Your task to perform on an android device: turn on airplane mode Image 0: 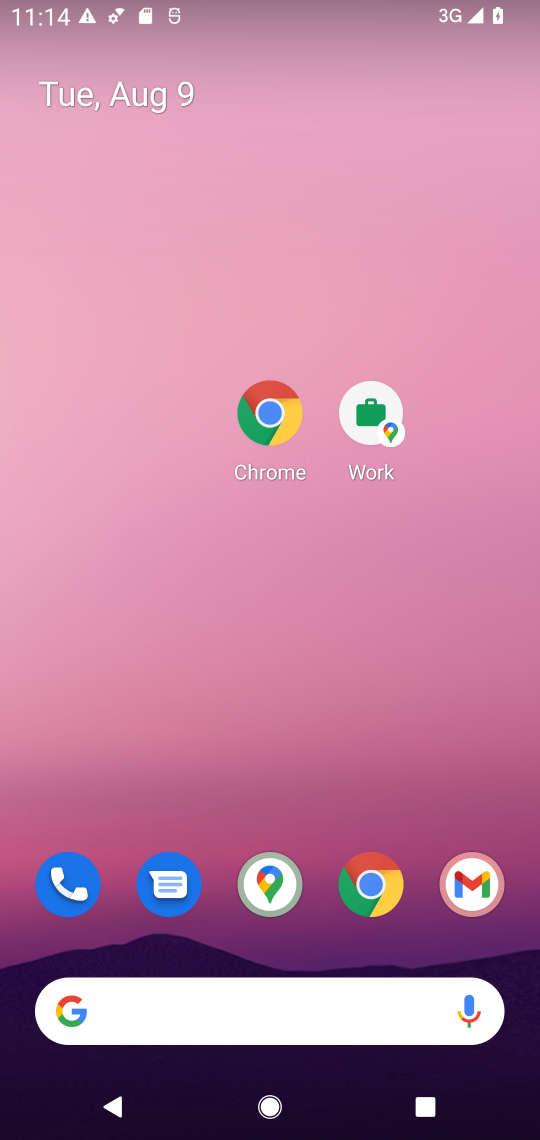
Step 0: drag from (302, 729) to (240, 426)
Your task to perform on an android device: turn on airplane mode Image 1: 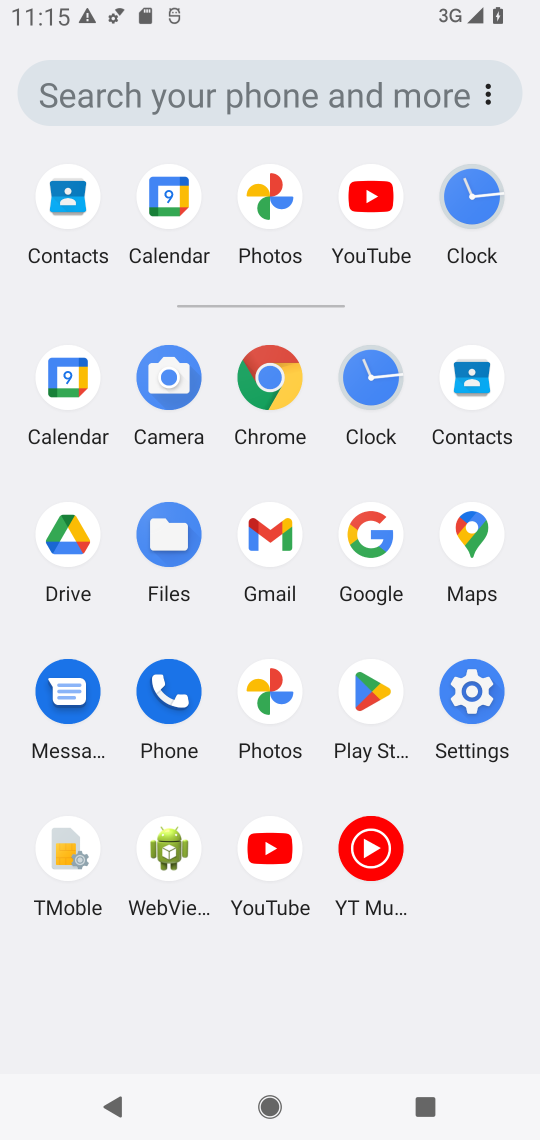
Step 1: click (473, 682)
Your task to perform on an android device: turn on airplane mode Image 2: 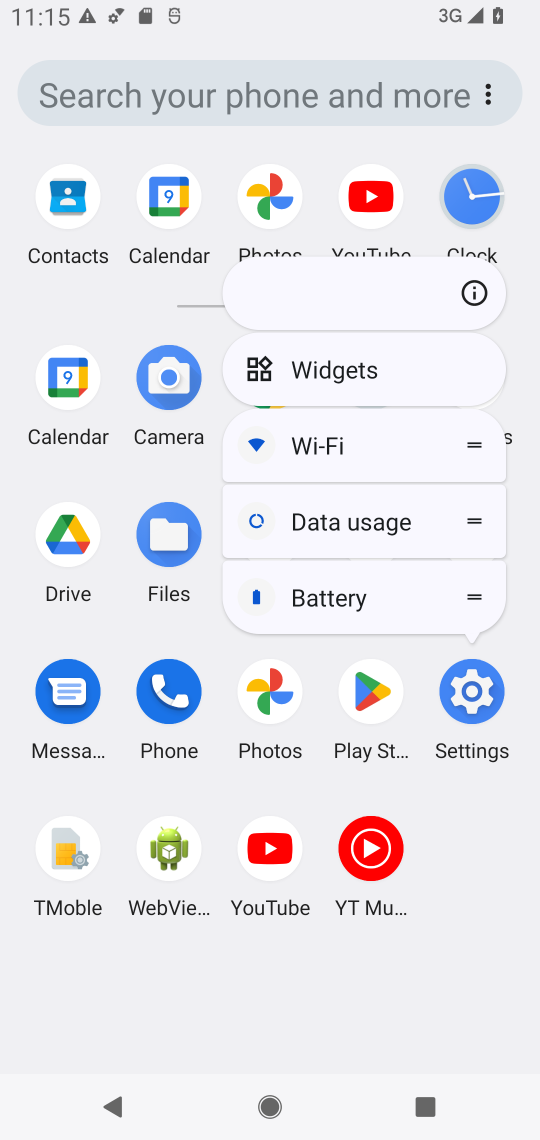
Step 2: click (450, 677)
Your task to perform on an android device: turn on airplane mode Image 3: 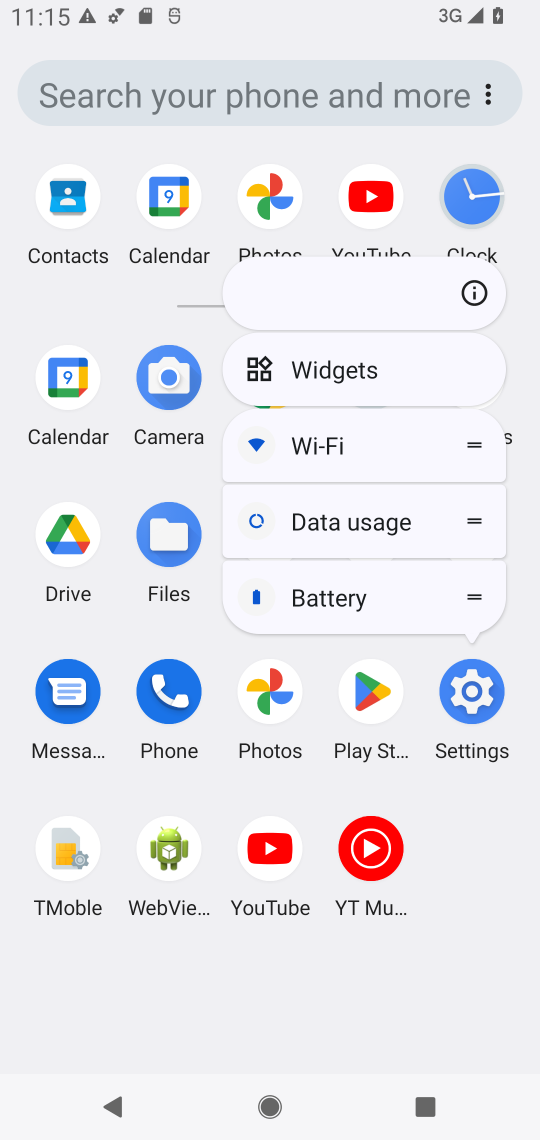
Step 3: click (468, 694)
Your task to perform on an android device: turn on airplane mode Image 4: 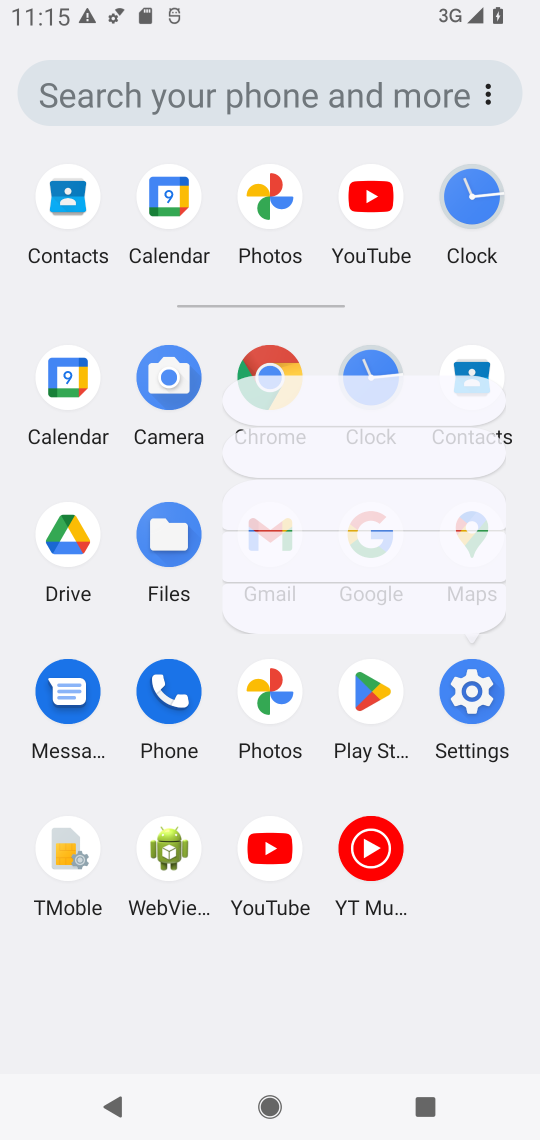
Step 4: click (478, 711)
Your task to perform on an android device: turn on airplane mode Image 5: 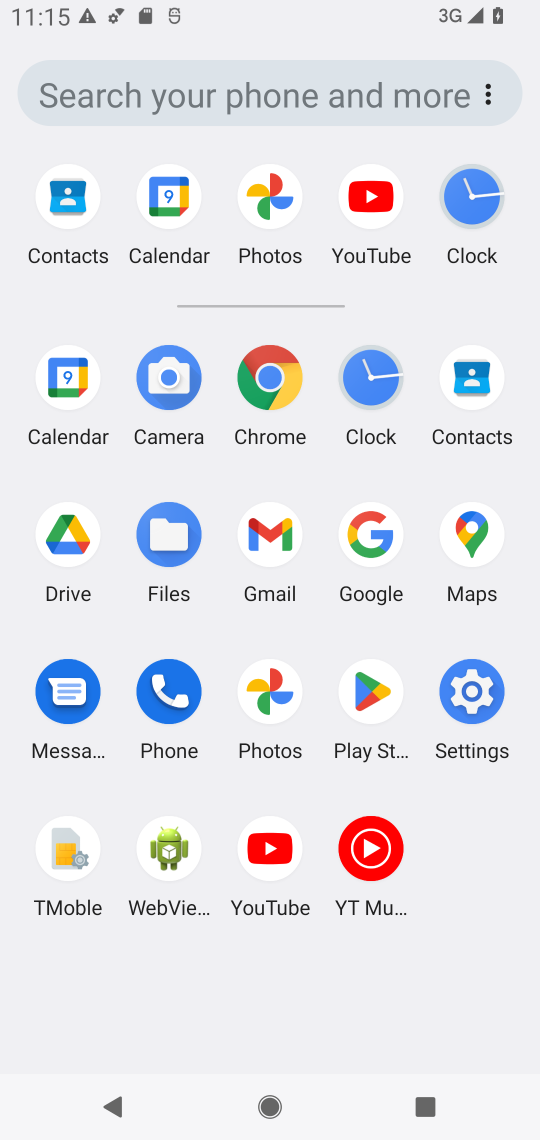
Step 5: click (480, 710)
Your task to perform on an android device: turn on airplane mode Image 6: 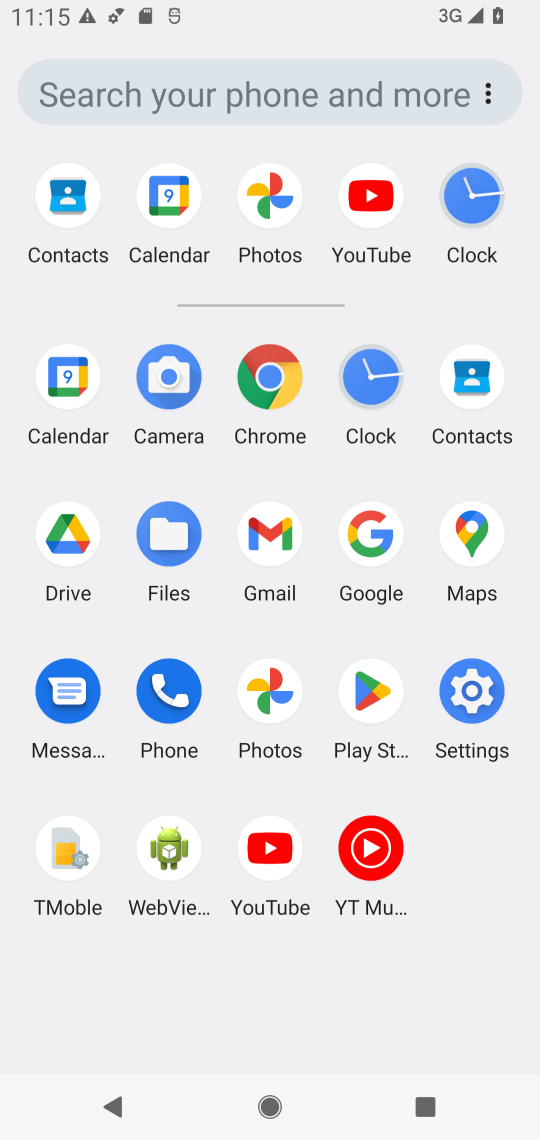
Step 6: click (475, 697)
Your task to perform on an android device: turn on airplane mode Image 7: 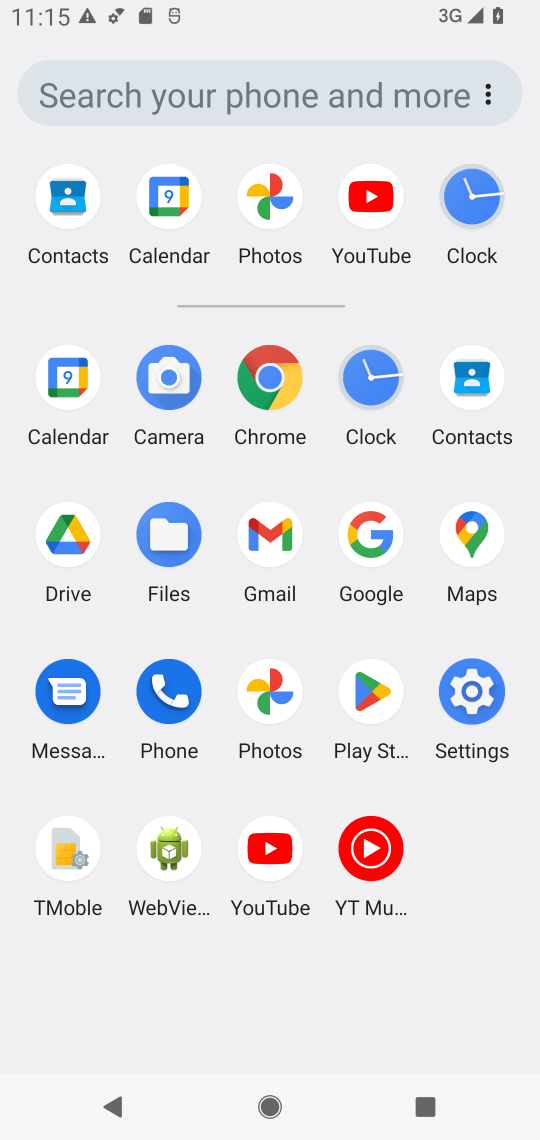
Step 7: click (475, 697)
Your task to perform on an android device: turn on airplane mode Image 8: 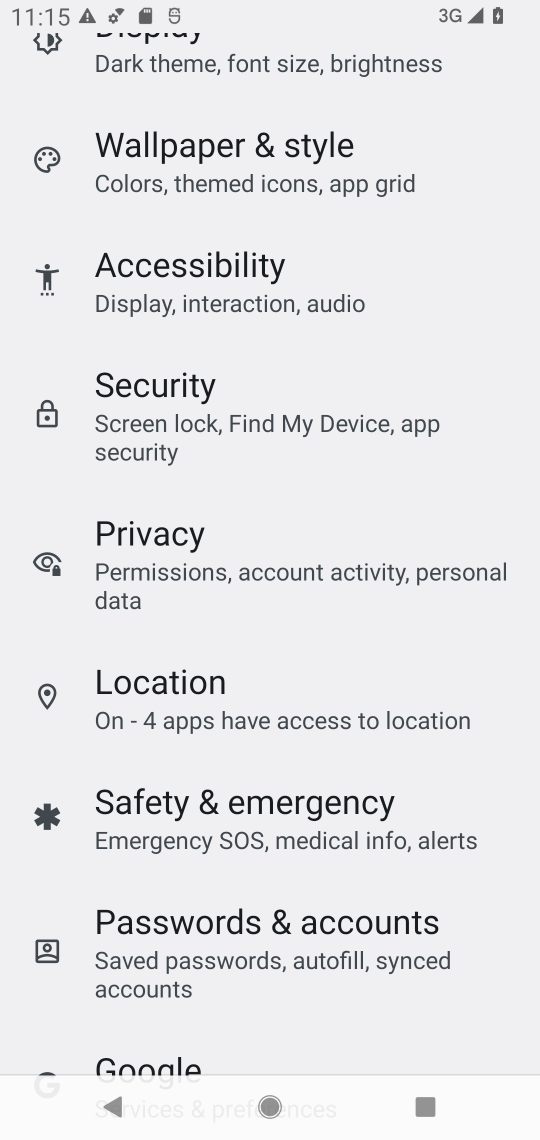
Step 8: drag from (201, 327) to (149, 794)
Your task to perform on an android device: turn on airplane mode Image 9: 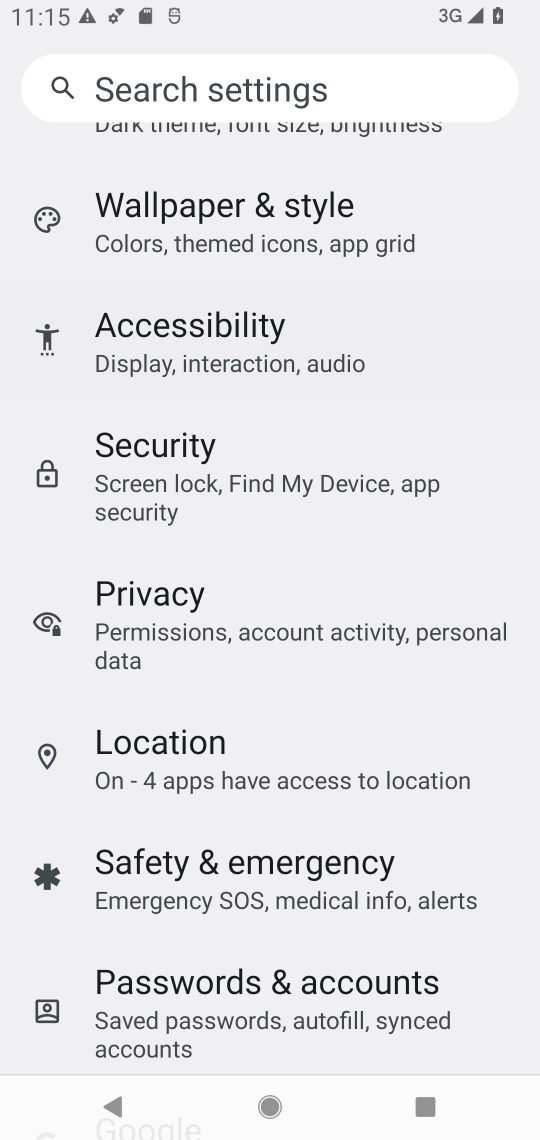
Step 9: drag from (173, 201) to (183, 637)
Your task to perform on an android device: turn on airplane mode Image 10: 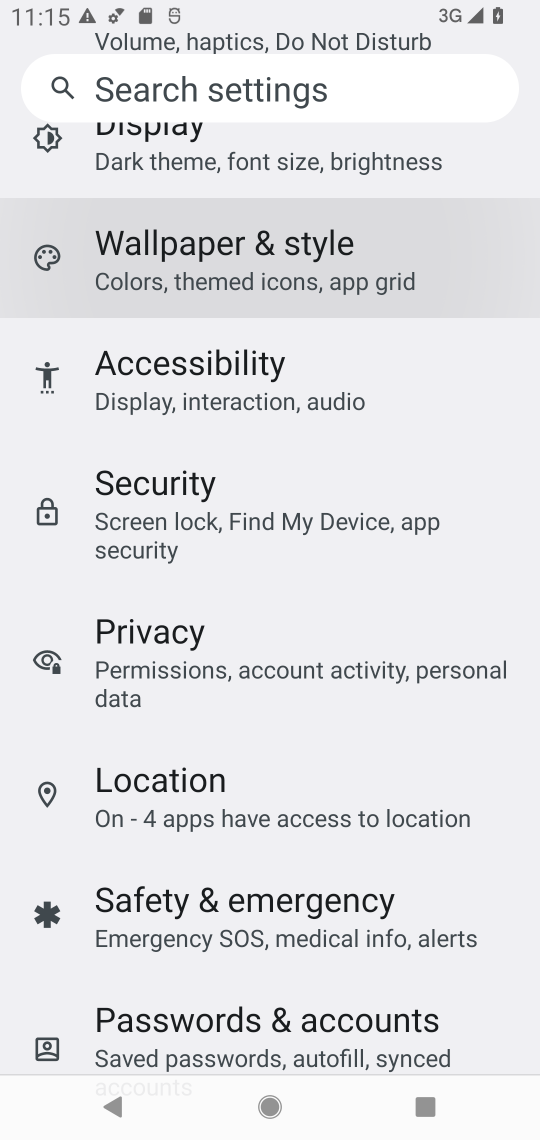
Step 10: drag from (163, 476) to (165, 718)
Your task to perform on an android device: turn on airplane mode Image 11: 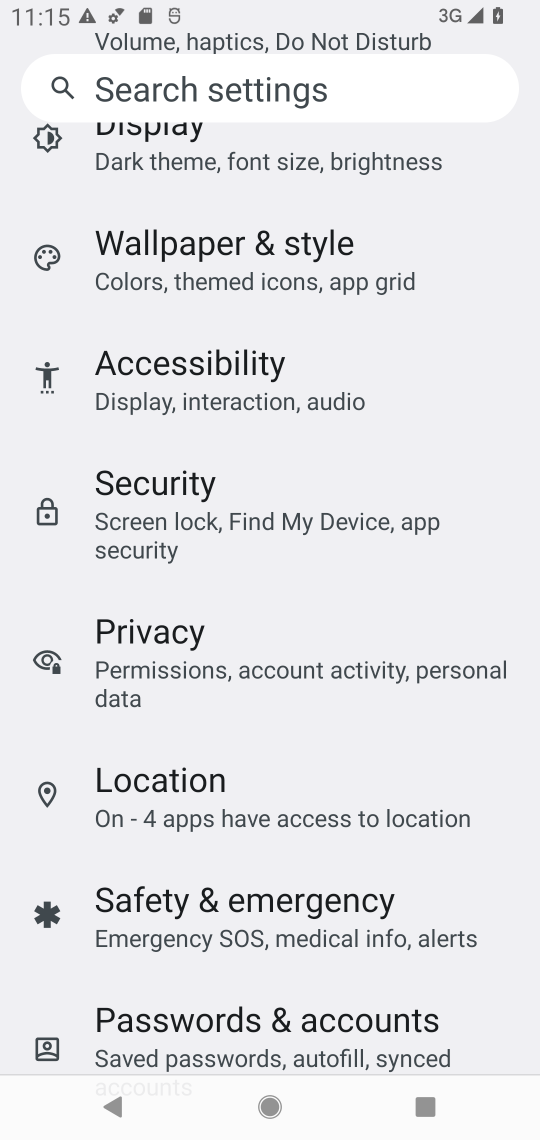
Step 11: drag from (199, 323) to (205, 834)
Your task to perform on an android device: turn on airplane mode Image 12: 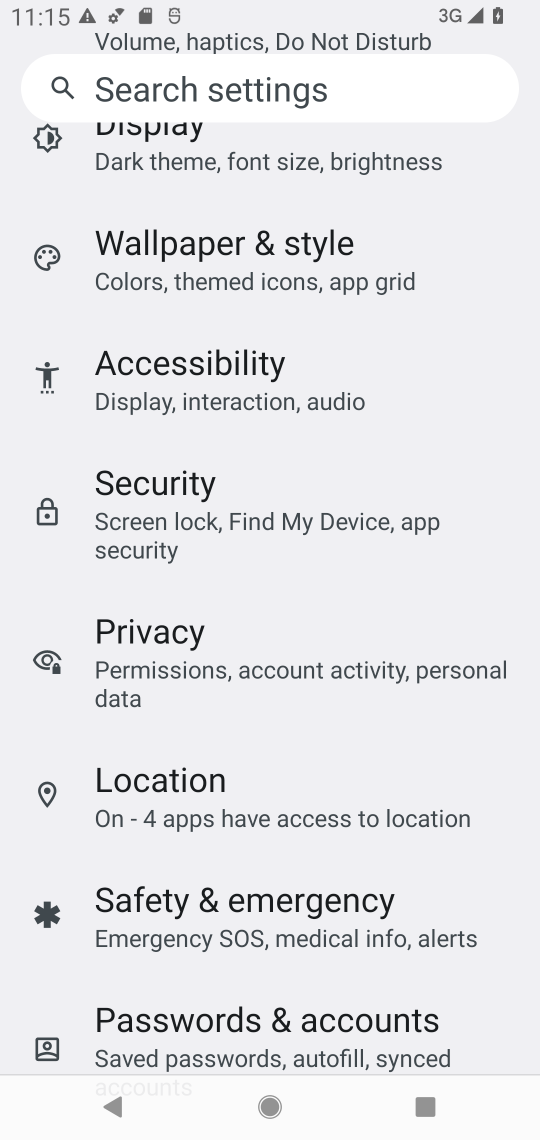
Step 12: drag from (207, 381) to (211, 765)
Your task to perform on an android device: turn on airplane mode Image 13: 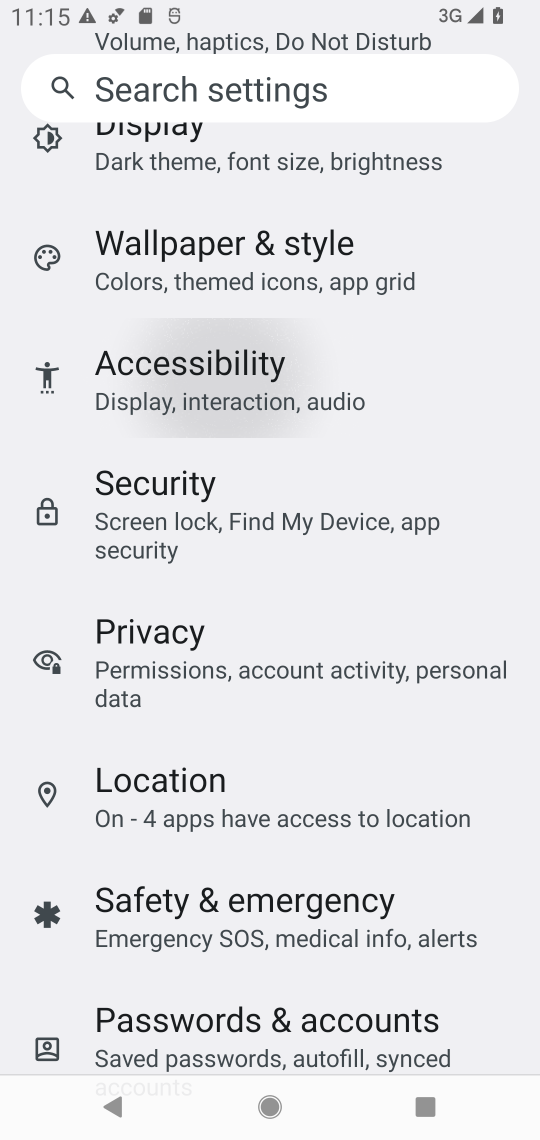
Step 13: click (188, 899)
Your task to perform on an android device: turn on airplane mode Image 14: 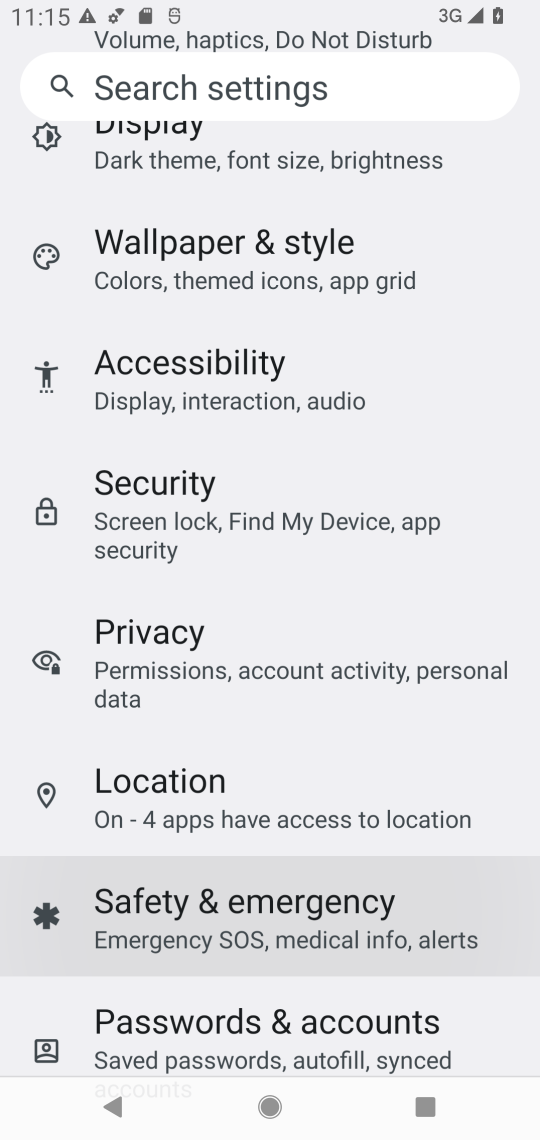
Step 14: drag from (205, 284) to (267, 693)
Your task to perform on an android device: turn on airplane mode Image 15: 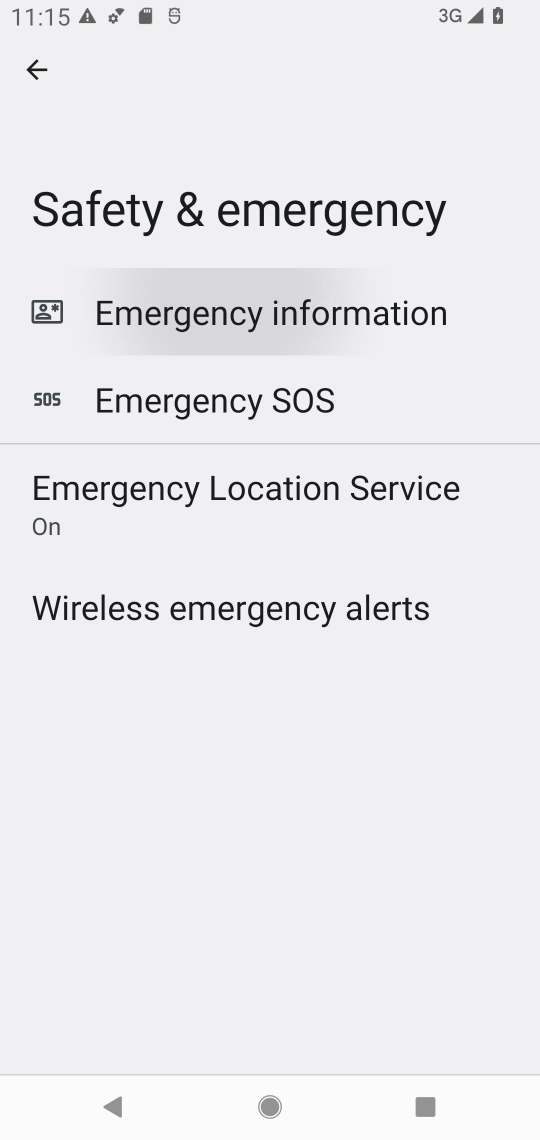
Step 15: drag from (268, 611) to (291, 1137)
Your task to perform on an android device: turn on airplane mode Image 16: 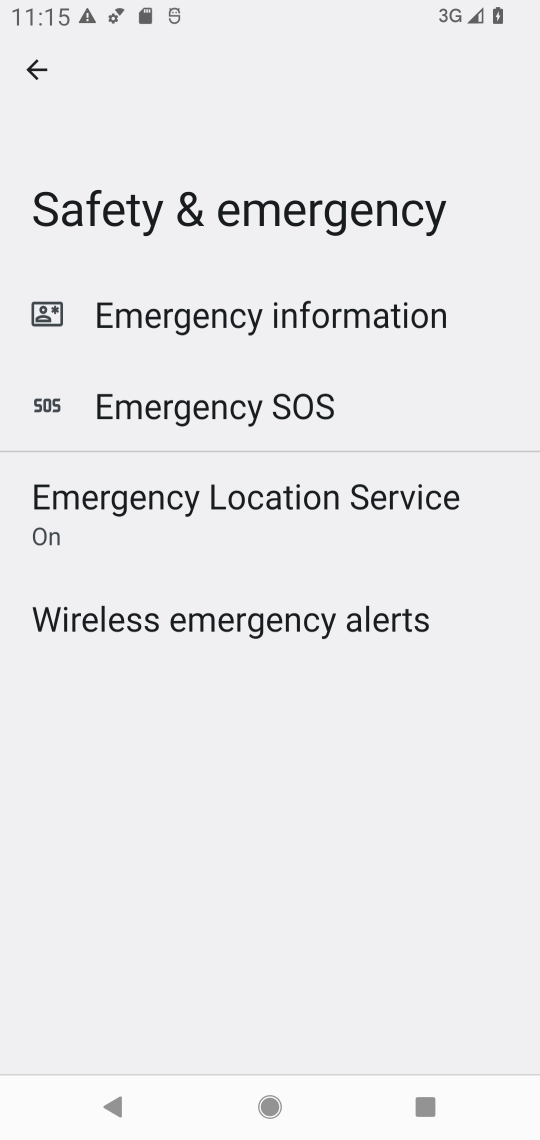
Step 16: click (54, 93)
Your task to perform on an android device: turn on airplane mode Image 17: 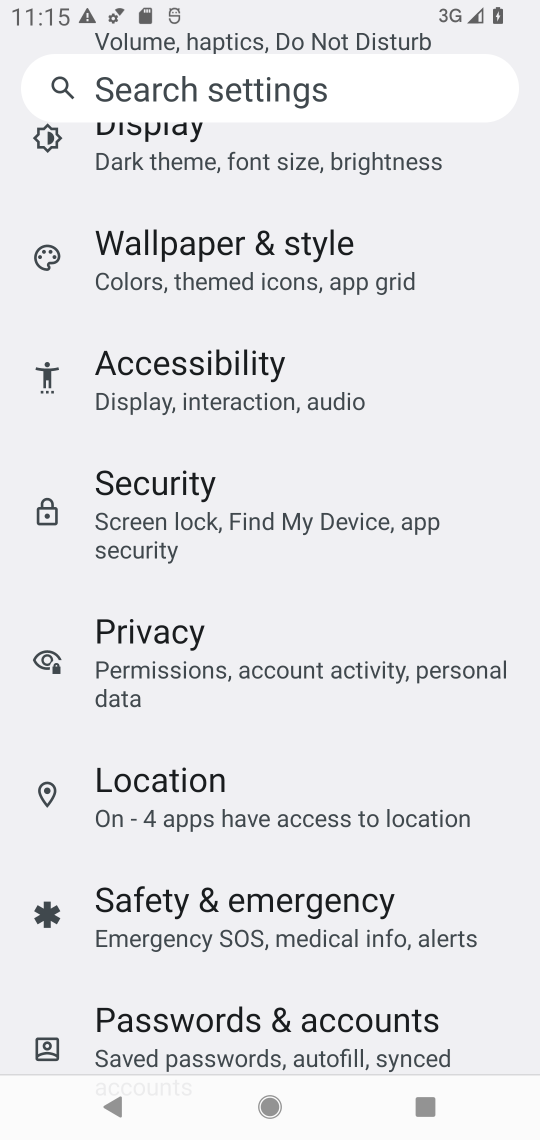
Step 17: drag from (249, 515) to (230, 836)
Your task to perform on an android device: turn on airplane mode Image 18: 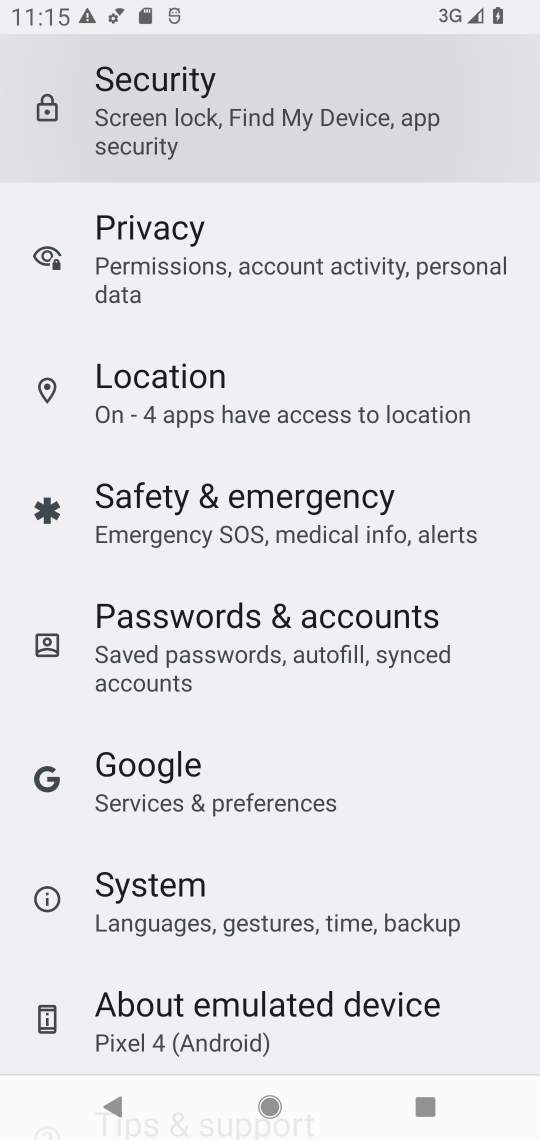
Step 18: drag from (176, 391) to (206, 826)
Your task to perform on an android device: turn on airplane mode Image 19: 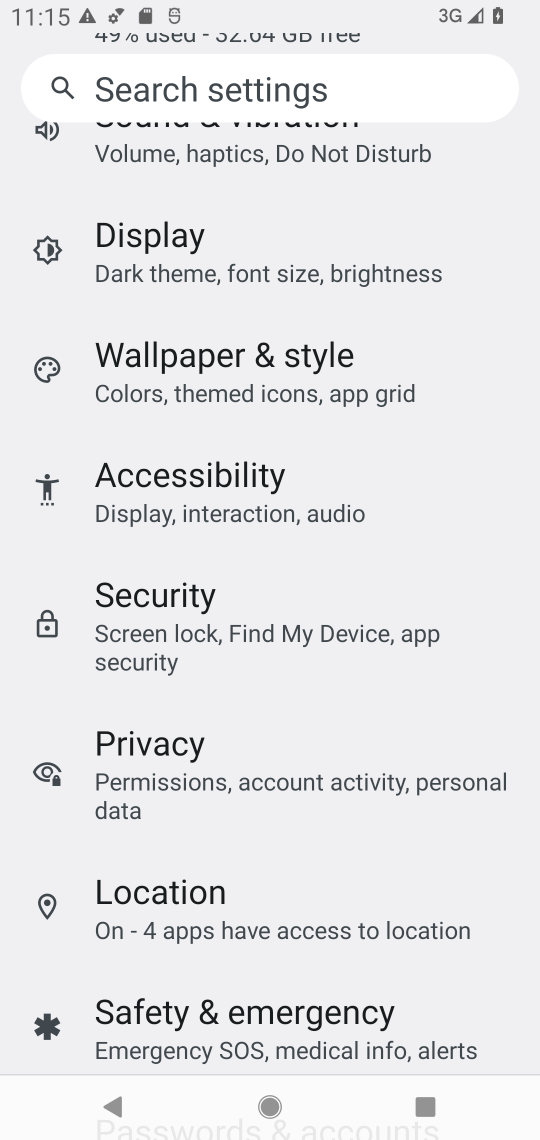
Step 19: drag from (187, 695) to (187, 816)
Your task to perform on an android device: turn on airplane mode Image 20: 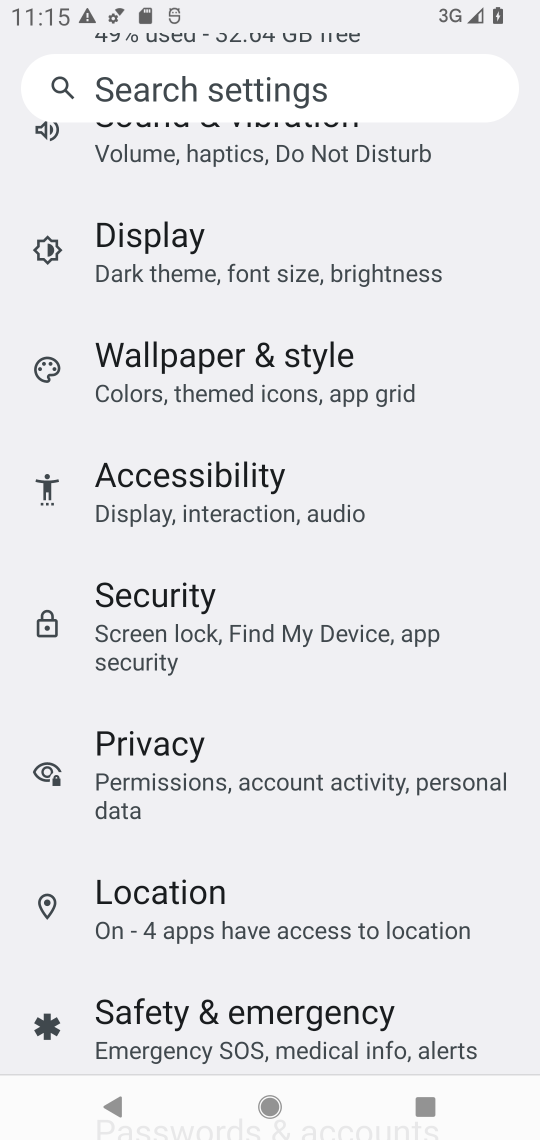
Step 20: drag from (190, 562) to (219, 810)
Your task to perform on an android device: turn on airplane mode Image 21: 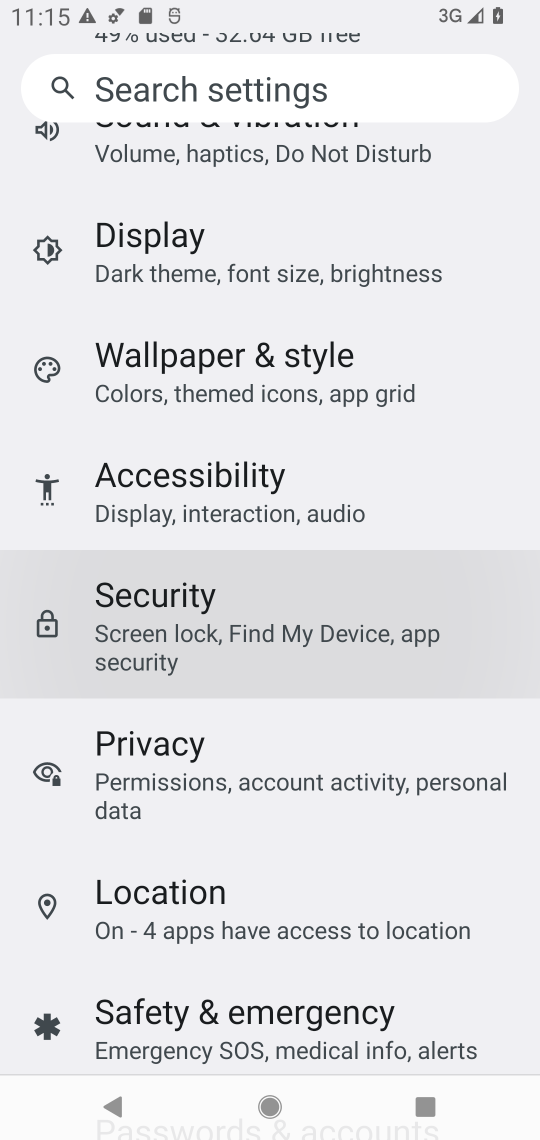
Step 21: drag from (321, 336) to (345, 718)
Your task to perform on an android device: turn on airplane mode Image 22: 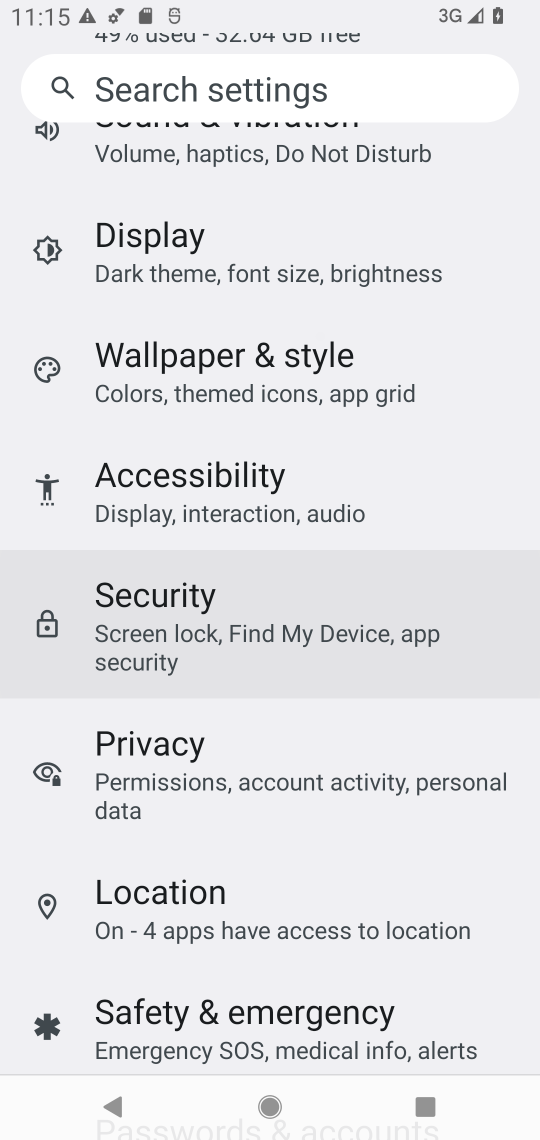
Step 22: drag from (259, 422) to (357, 744)
Your task to perform on an android device: turn on airplane mode Image 23: 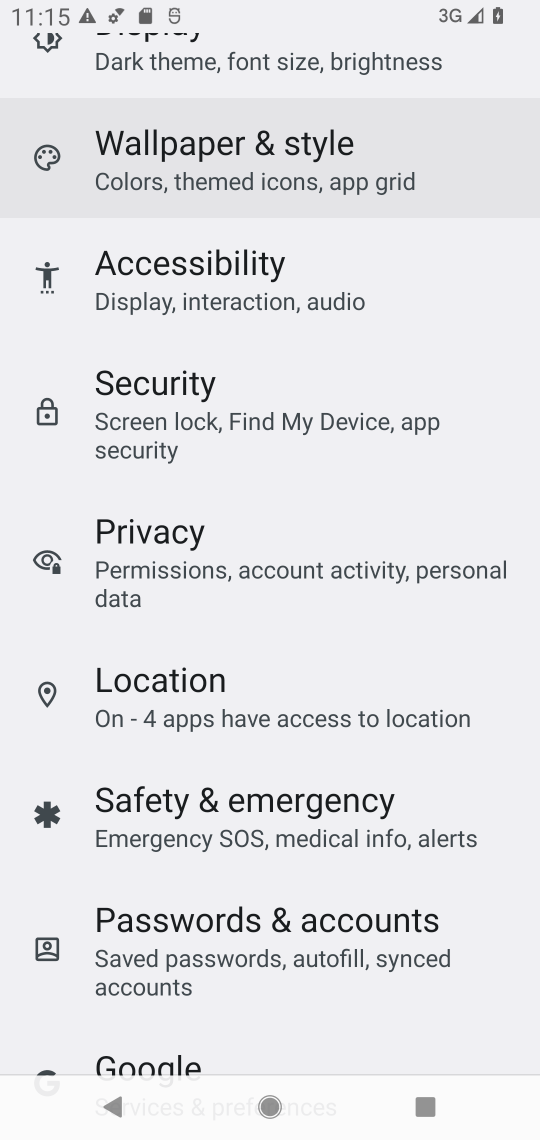
Step 23: drag from (218, 375) to (322, 648)
Your task to perform on an android device: turn on airplane mode Image 24: 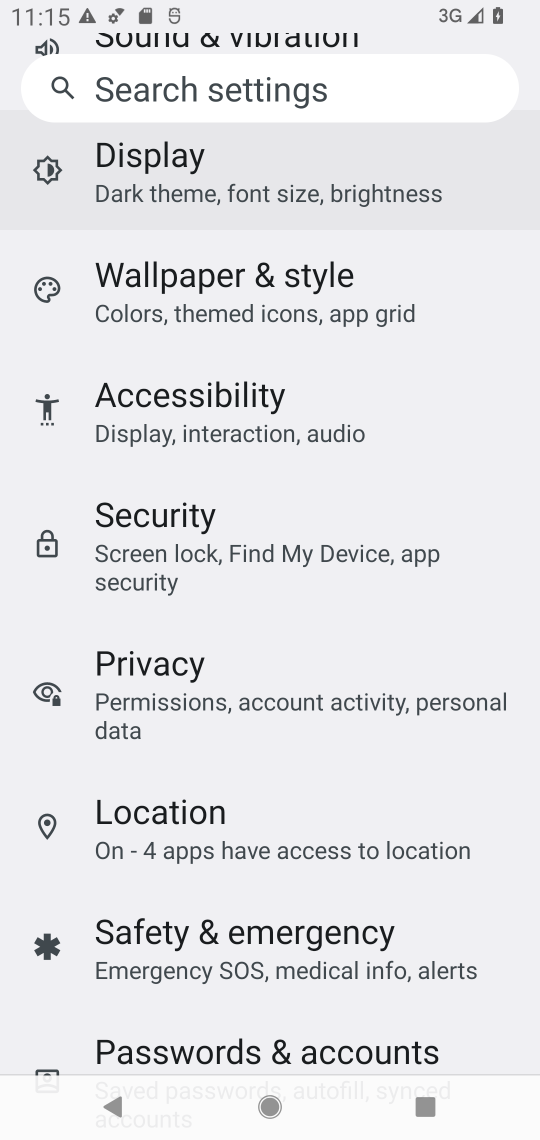
Step 24: drag from (192, 442) to (146, 858)
Your task to perform on an android device: turn on airplane mode Image 25: 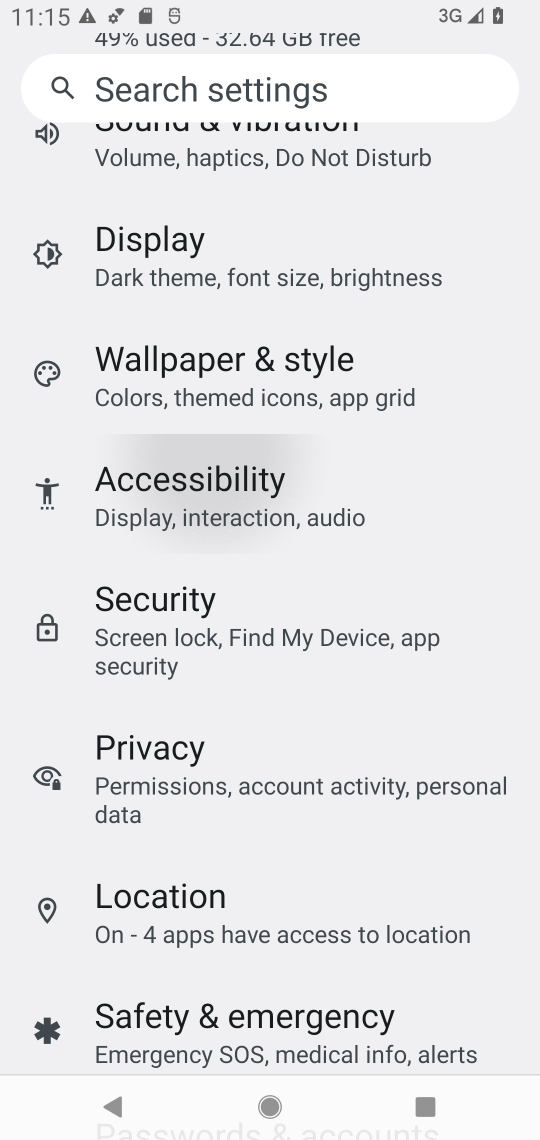
Step 25: click (165, 674)
Your task to perform on an android device: turn on airplane mode Image 26: 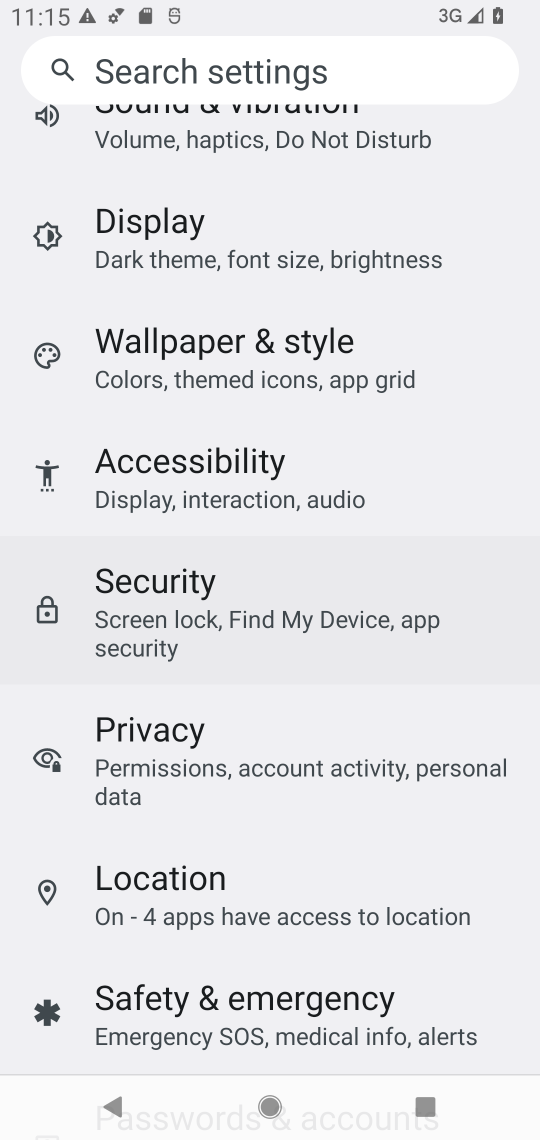
Step 26: drag from (271, 350) to (271, 635)
Your task to perform on an android device: turn on airplane mode Image 27: 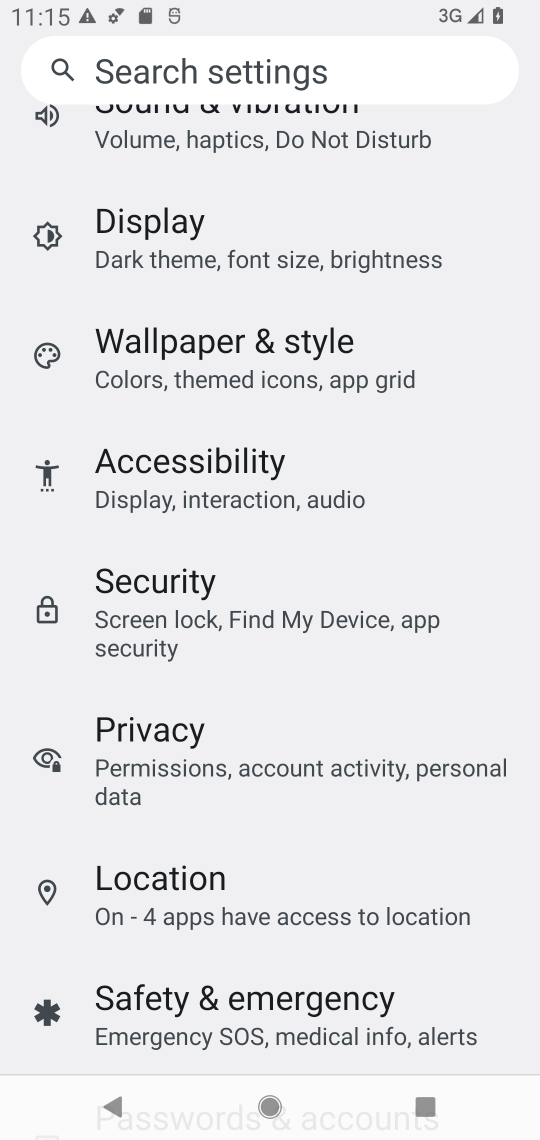
Step 27: drag from (289, 277) to (233, 776)
Your task to perform on an android device: turn on airplane mode Image 28: 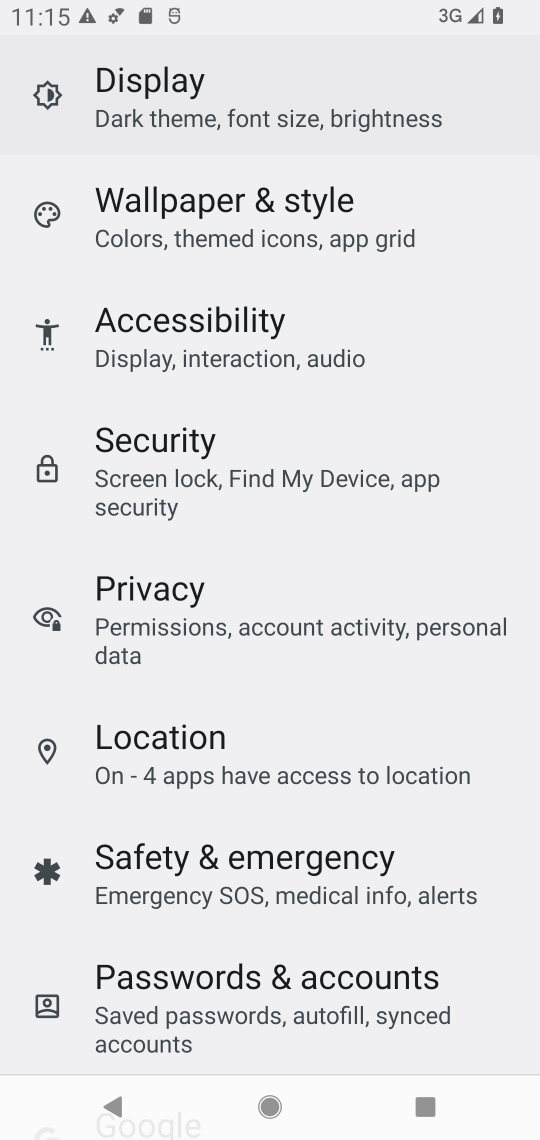
Step 28: drag from (304, 268) to (304, 798)
Your task to perform on an android device: turn on airplane mode Image 29: 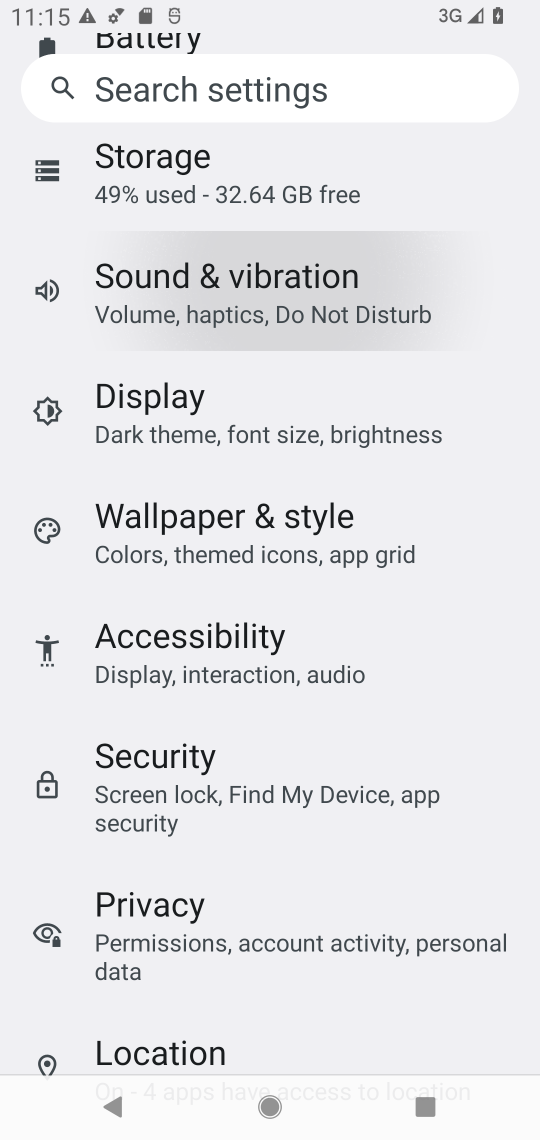
Step 29: drag from (443, 156) to (335, 808)
Your task to perform on an android device: turn on airplane mode Image 30: 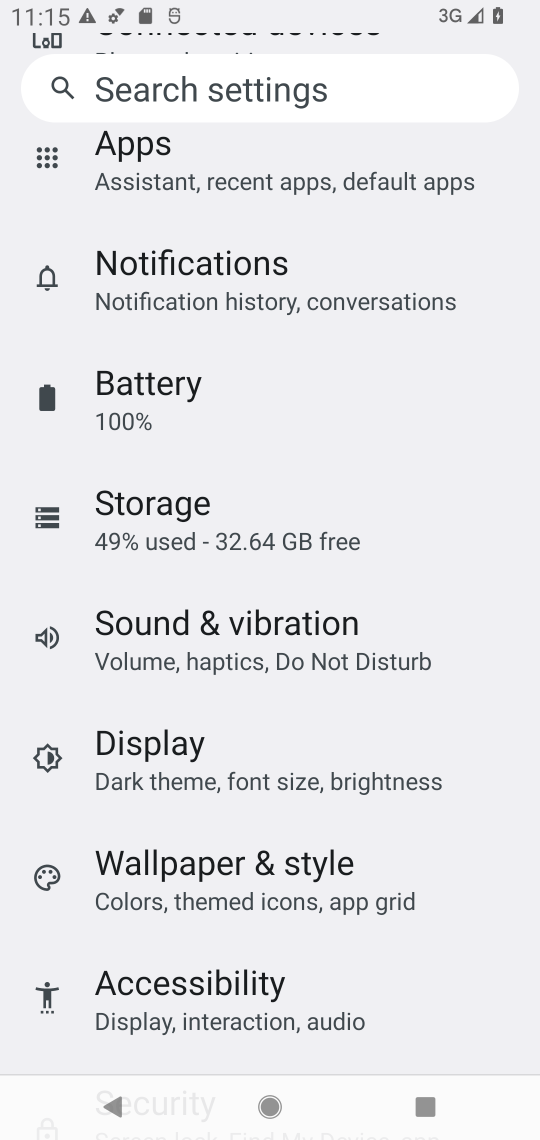
Step 30: drag from (169, 315) to (171, 646)
Your task to perform on an android device: turn on airplane mode Image 31: 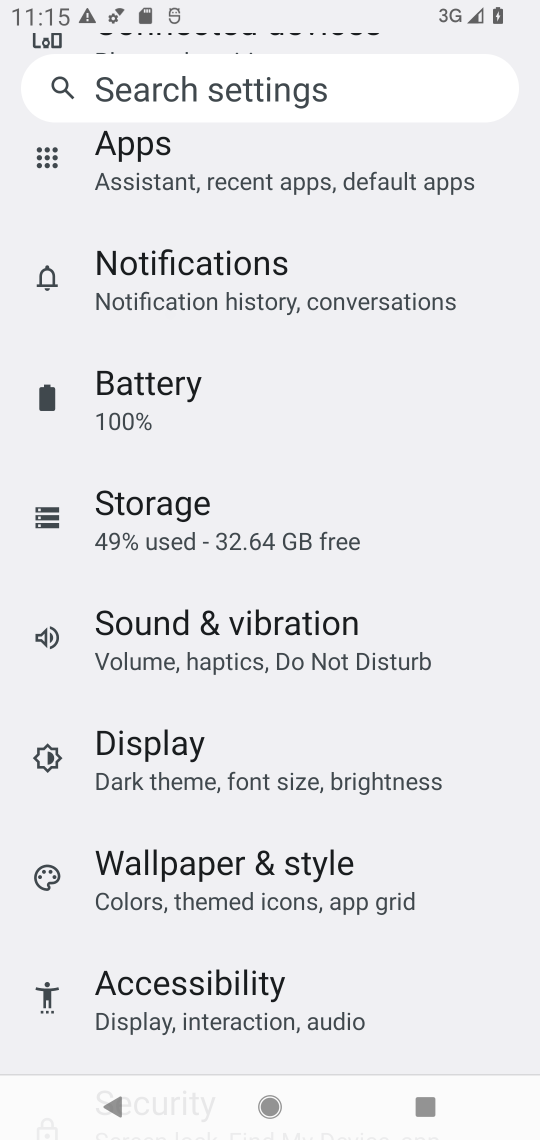
Step 31: drag from (193, 190) to (76, 628)
Your task to perform on an android device: turn on airplane mode Image 32: 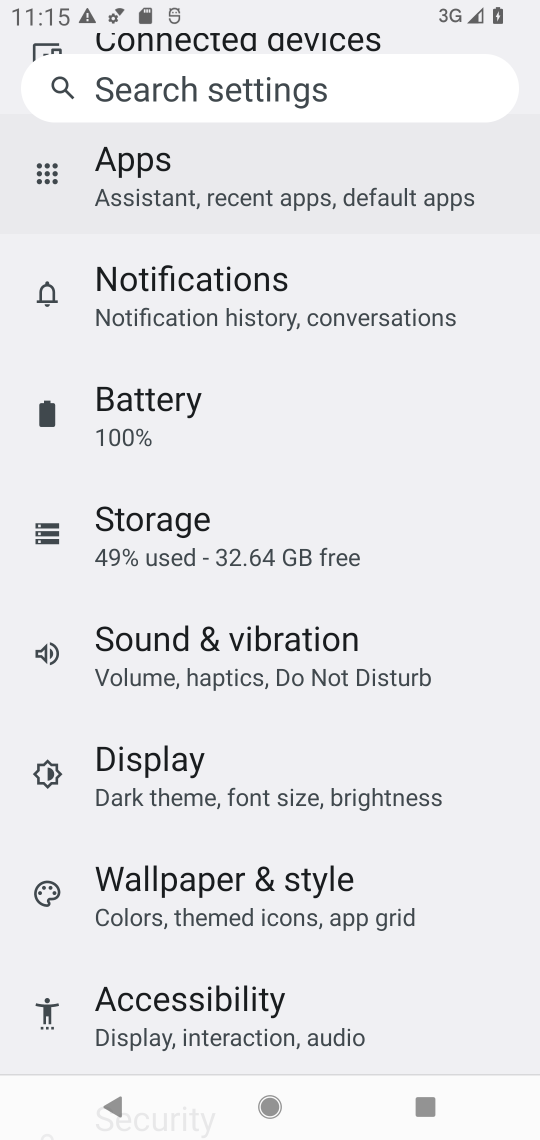
Step 32: drag from (162, 223) to (200, 830)
Your task to perform on an android device: turn on airplane mode Image 33: 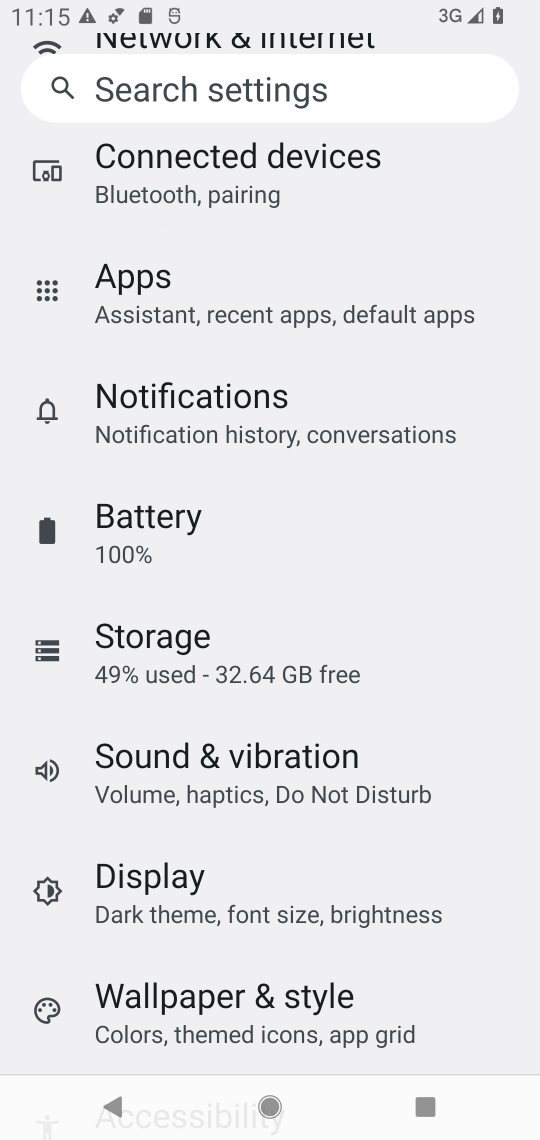
Step 33: drag from (250, 178) to (316, 875)
Your task to perform on an android device: turn on airplane mode Image 34: 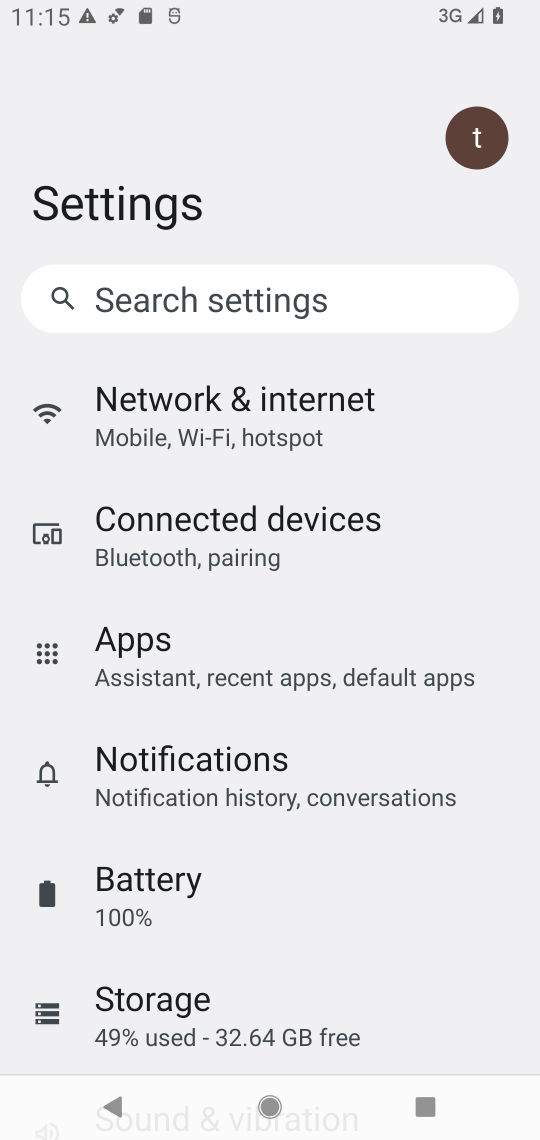
Step 34: click (172, 419)
Your task to perform on an android device: turn on airplane mode Image 35: 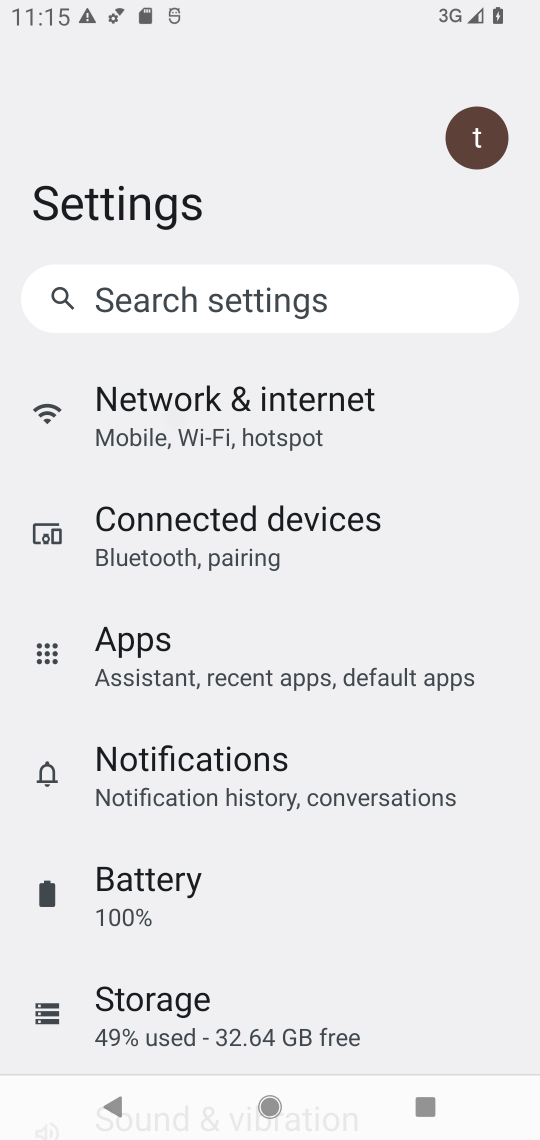
Step 35: click (183, 439)
Your task to perform on an android device: turn on airplane mode Image 36: 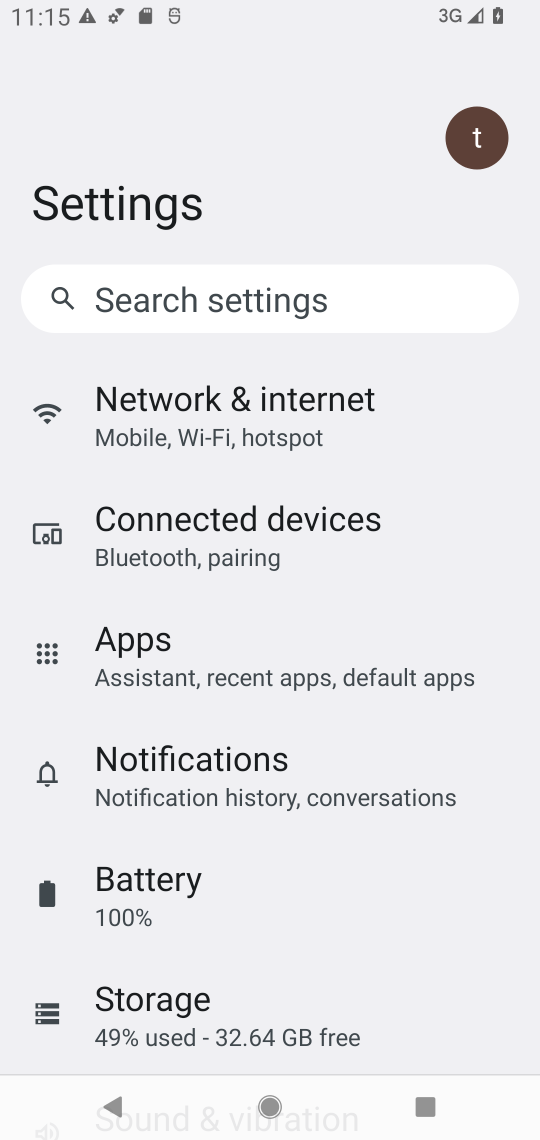
Step 36: click (183, 439)
Your task to perform on an android device: turn on airplane mode Image 37: 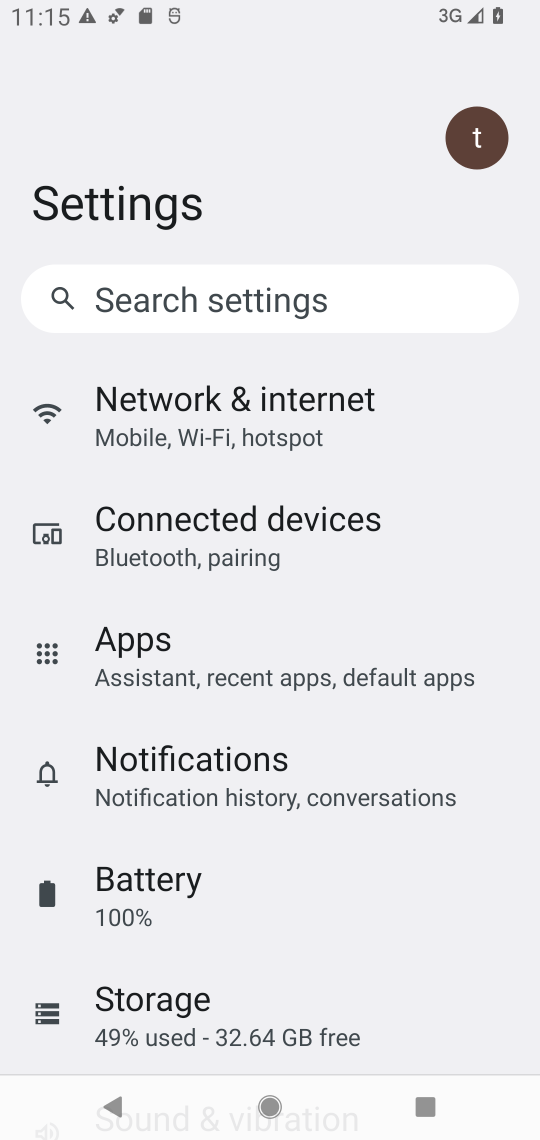
Step 37: click (185, 425)
Your task to perform on an android device: turn on airplane mode Image 38: 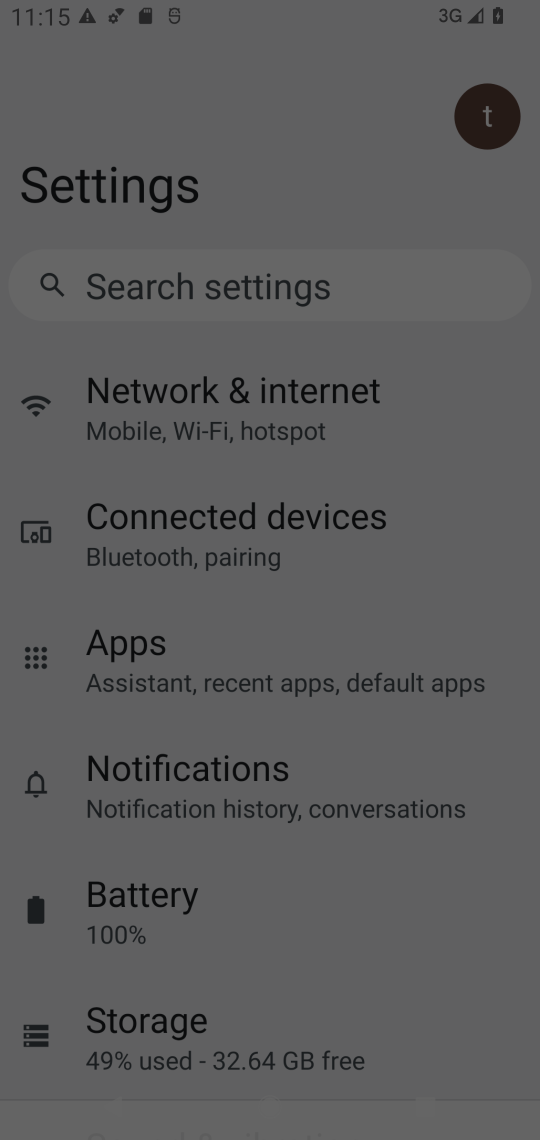
Step 38: click (195, 413)
Your task to perform on an android device: turn on airplane mode Image 39: 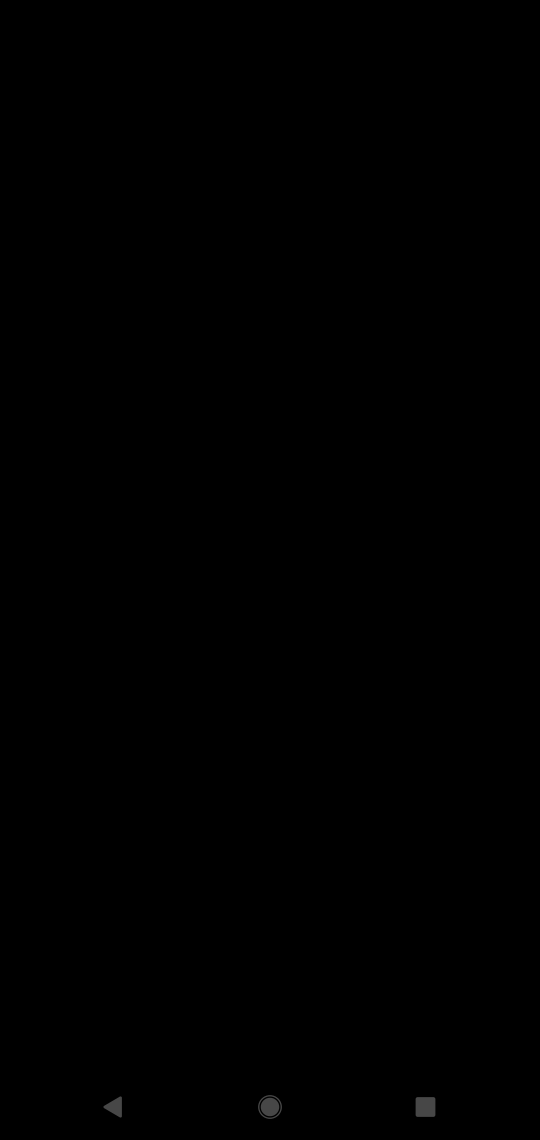
Step 39: click (196, 427)
Your task to perform on an android device: turn on airplane mode Image 40: 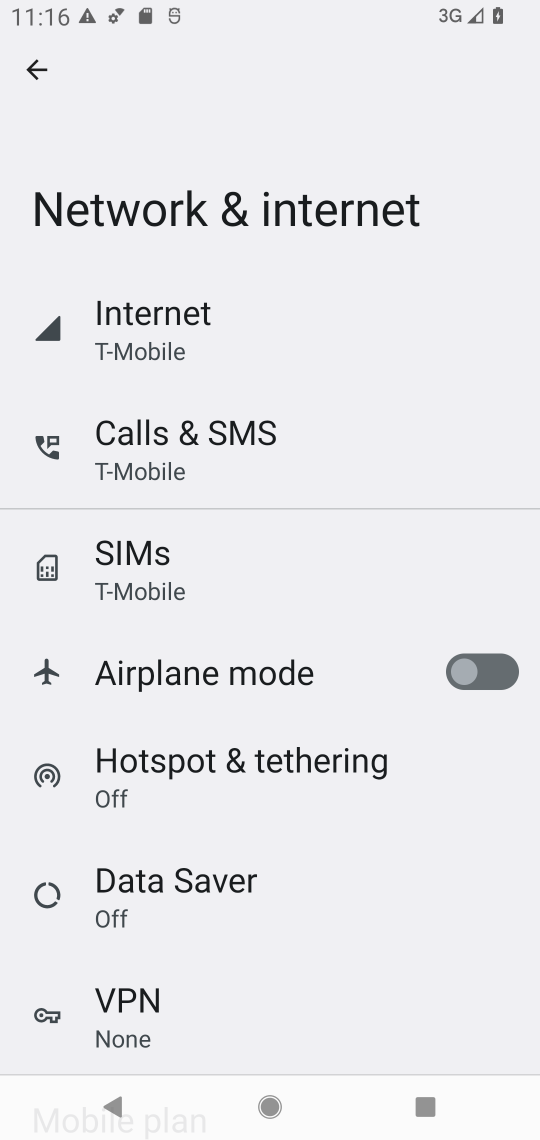
Step 40: click (470, 673)
Your task to perform on an android device: turn on airplane mode Image 41: 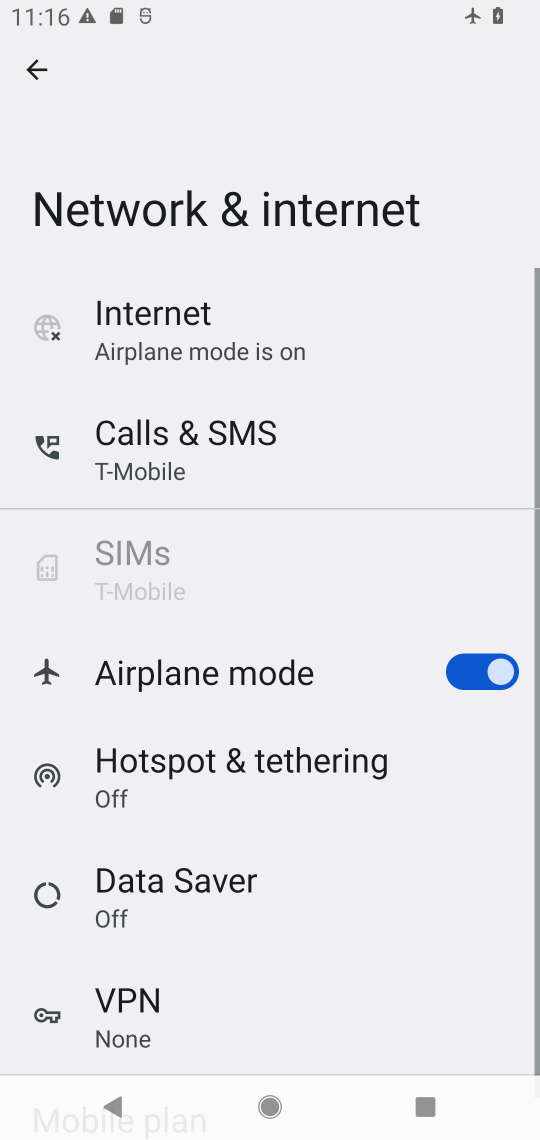
Step 41: task complete